Your task to perform on an android device: When is my next appointment? Image 0: 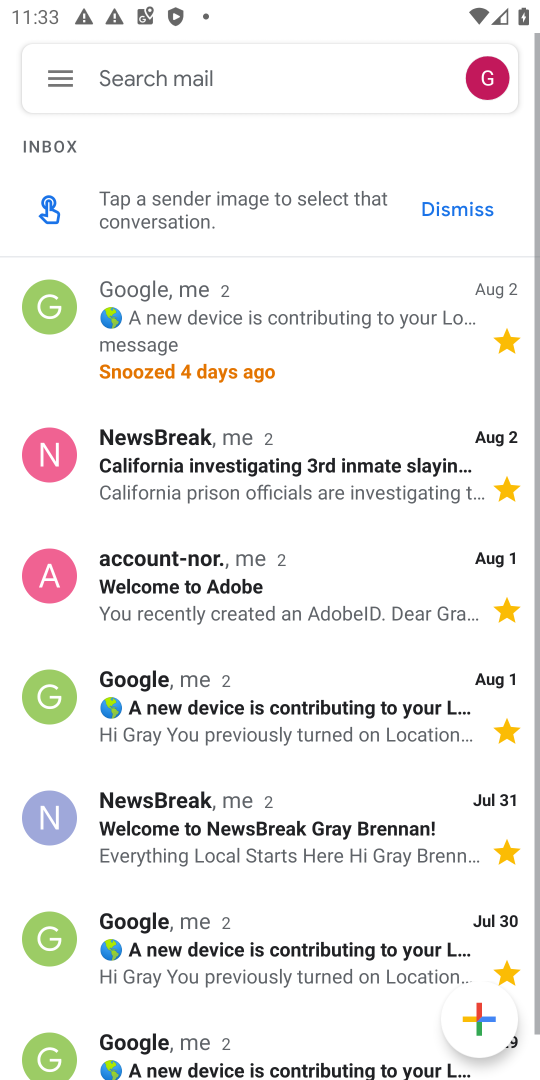
Step 0: press home button
Your task to perform on an android device: When is my next appointment? Image 1: 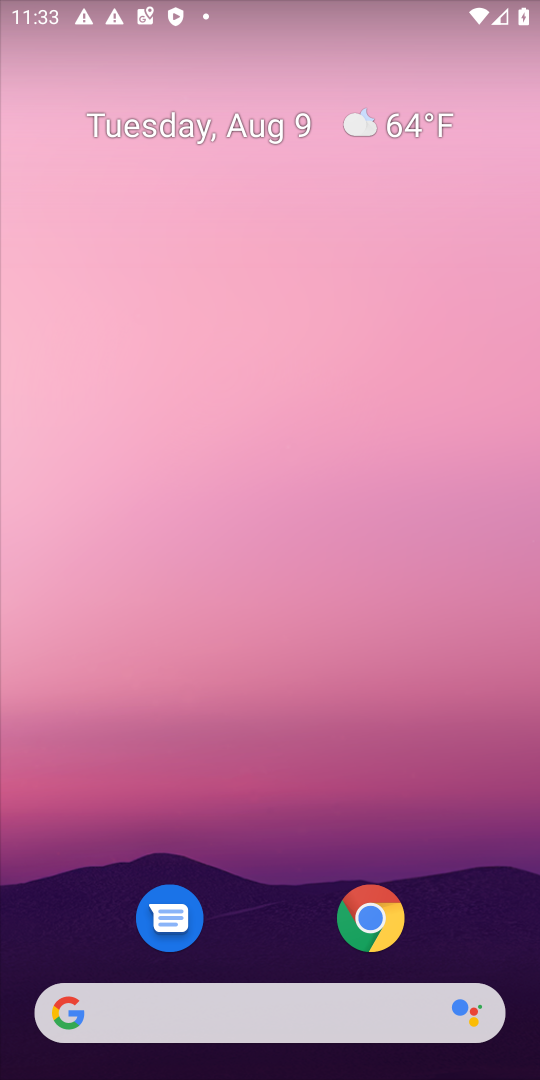
Step 1: drag from (246, 876) to (255, 157)
Your task to perform on an android device: When is my next appointment? Image 2: 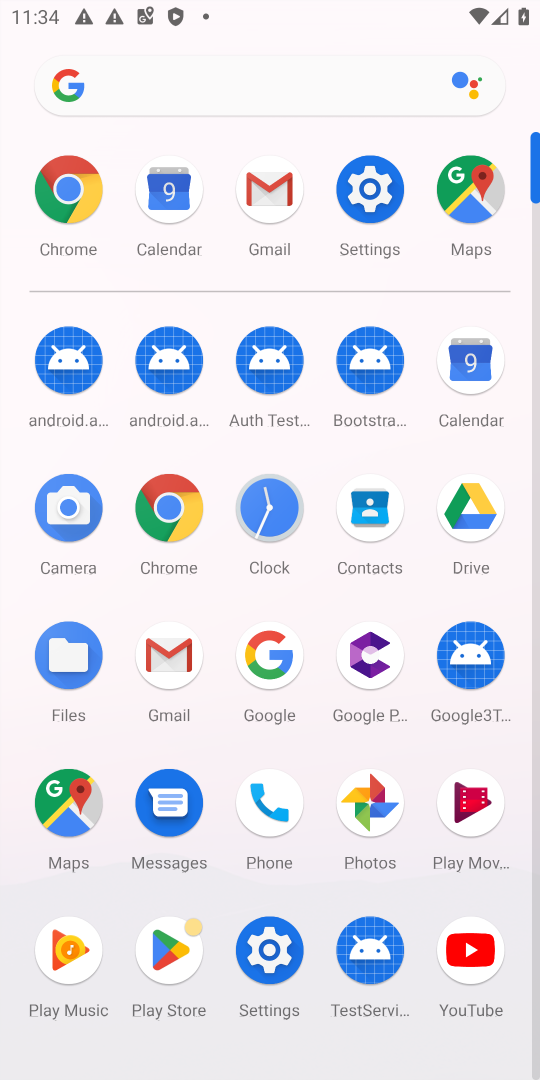
Step 2: click (481, 367)
Your task to perform on an android device: When is my next appointment? Image 3: 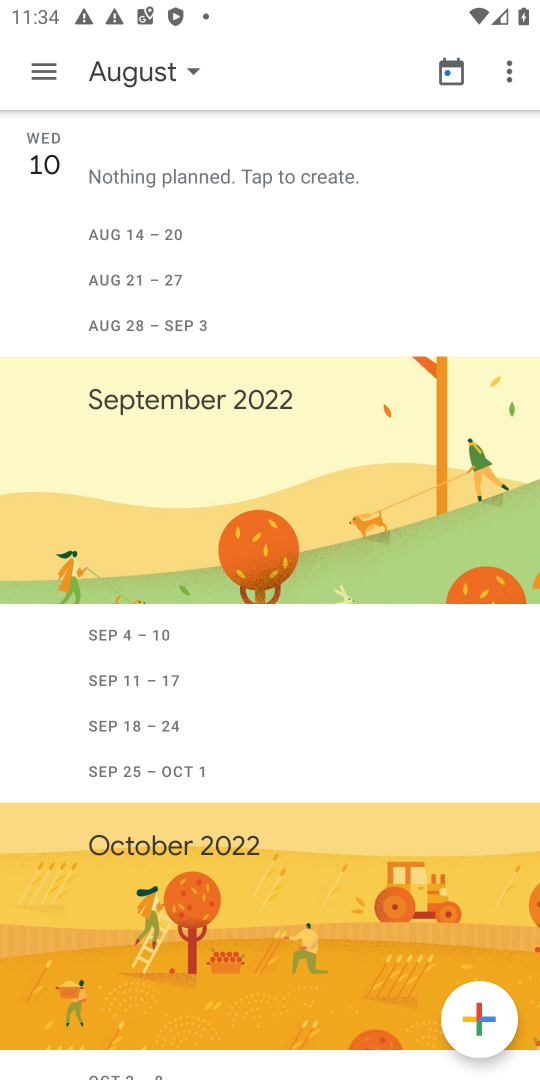
Step 3: click (31, 73)
Your task to perform on an android device: When is my next appointment? Image 4: 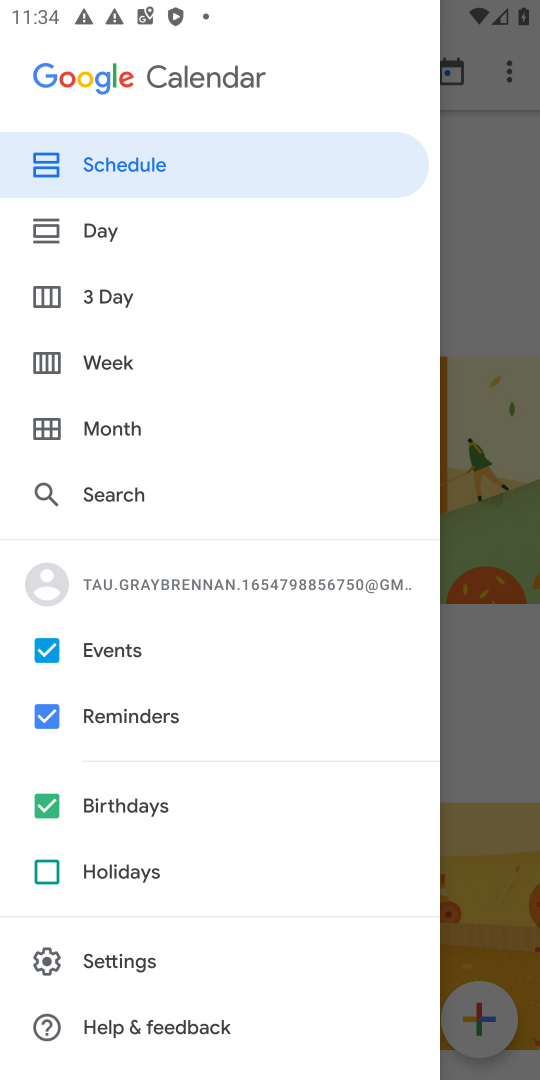
Step 4: click (106, 356)
Your task to perform on an android device: When is my next appointment? Image 5: 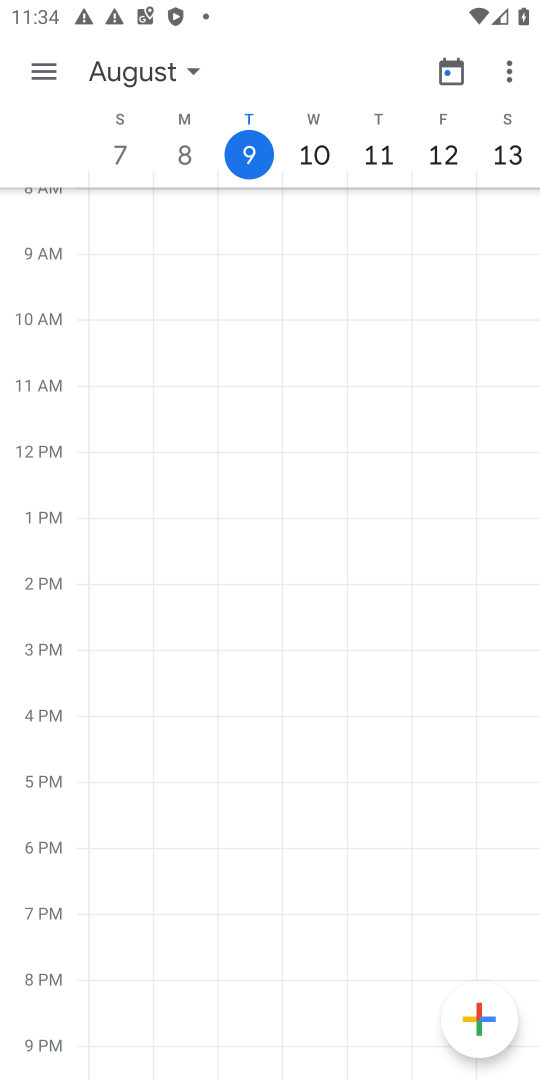
Step 5: task complete